Your task to perform on an android device: turn off notifications settings in the gmail app Image 0: 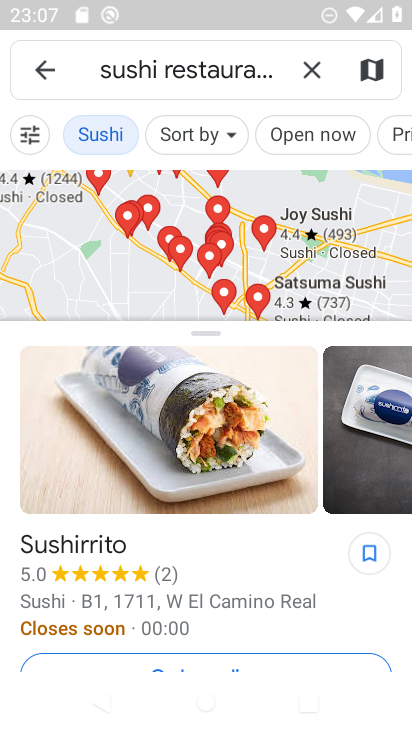
Step 0: press home button
Your task to perform on an android device: turn off notifications settings in the gmail app Image 1: 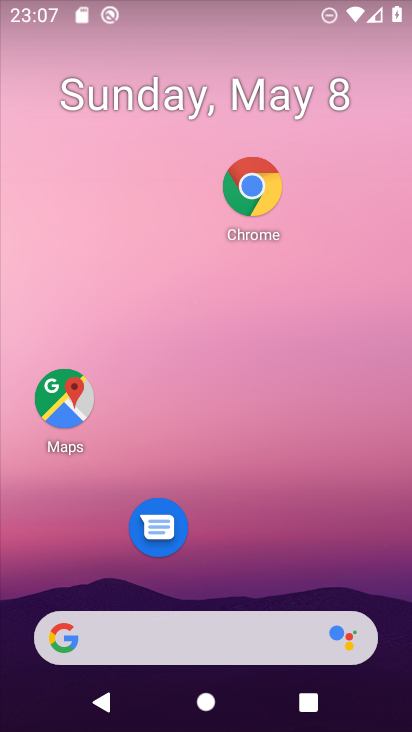
Step 1: drag from (340, 536) to (363, 228)
Your task to perform on an android device: turn off notifications settings in the gmail app Image 2: 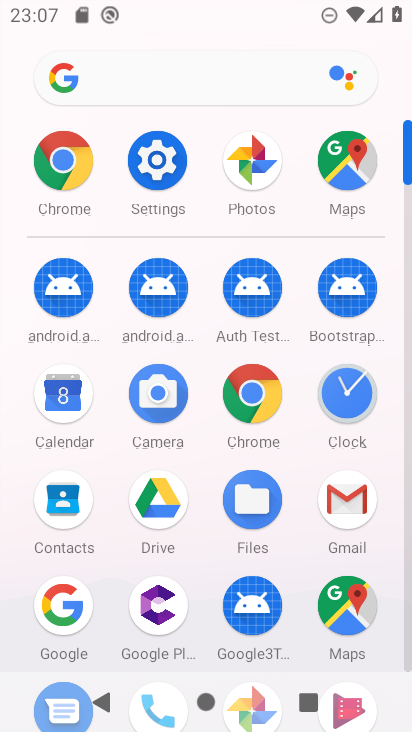
Step 2: click (347, 491)
Your task to perform on an android device: turn off notifications settings in the gmail app Image 3: 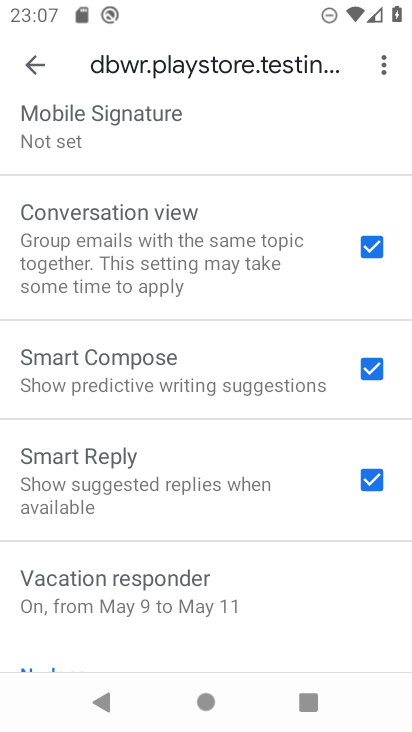
Step 3: drag from (139, 155) to (214, 598)
Your task to perform on an android device: turn off notifications settings in the gmail app Image 4: 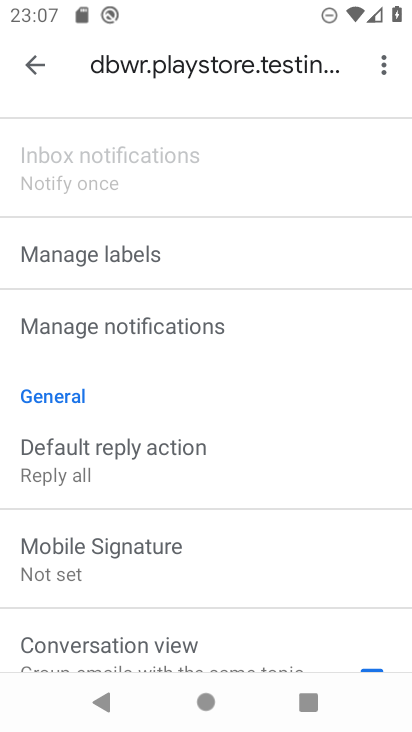
Step 4: drag from (167, 228) to (218, 581)
Your task to perform on an android device: turn off notifications settings in the gmail app Image 5: 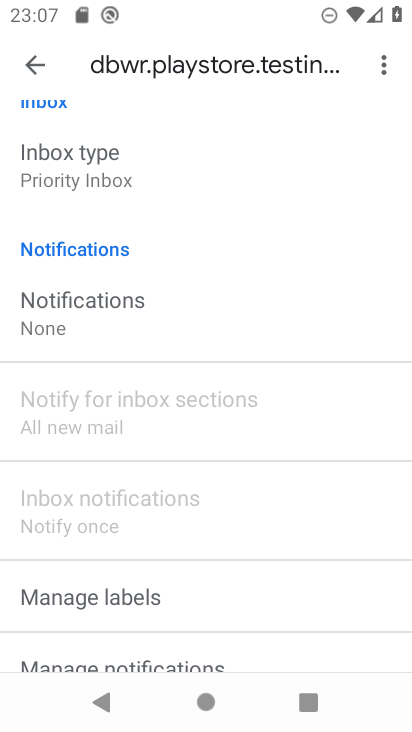
Step 5: click (131, 331)
Your task to perform on an android device: turn off notifications settings in the gmail app Image 6: 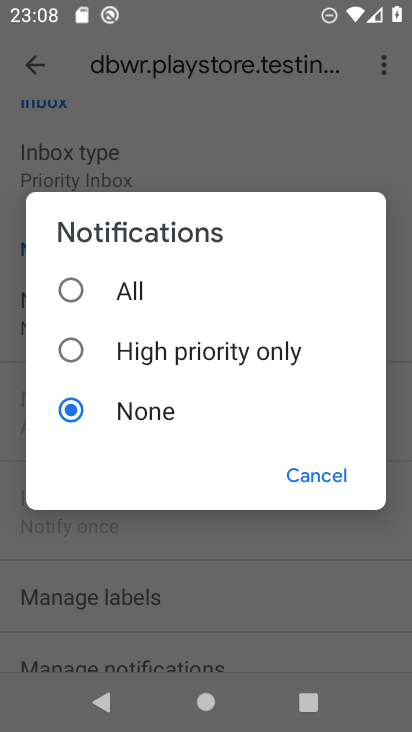
Step 6: task complete